Your task to perform on an android device: turn off location history Image 0: 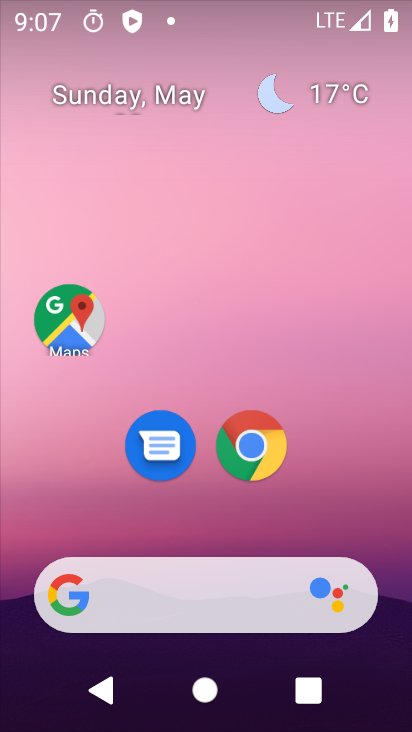
Step 0: click (297, 111)
Your task to perform on an android device: turn off location history Image 1: 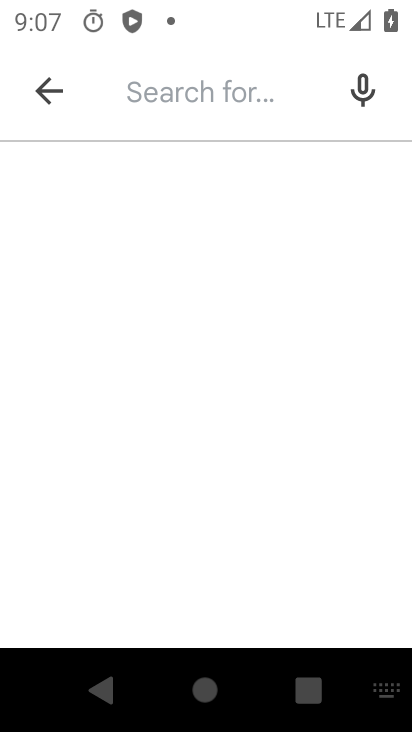
Step 1: press home button
Your task to perform on an android device: turn off location history Image 2: 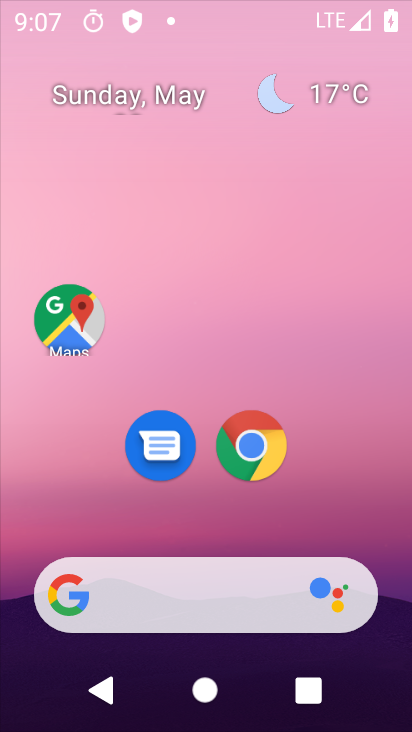
Step 2: drag from (239, 521) to (294, 181)
Your task to perform on an android device: turn off location history Image 3: 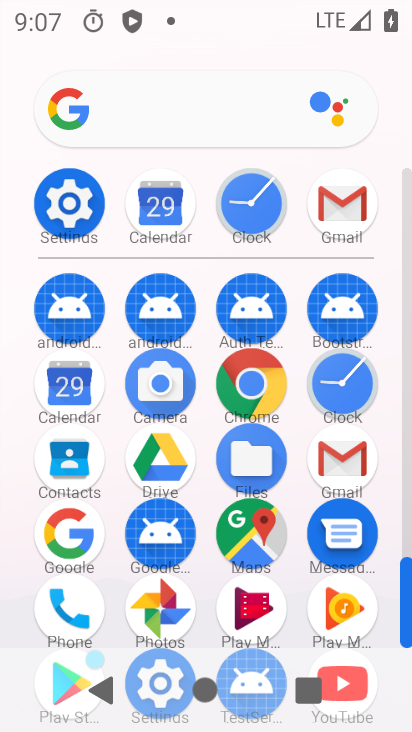
Step 3: click (54, 198)
Your task to perform on an android device: turn off location history Image 4: 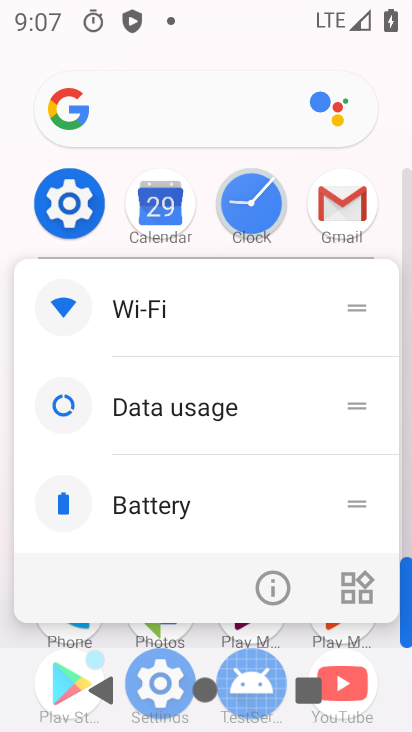
Step 4: click (263, 573)
Your task to perform on an android device: turn off location history Image 5: 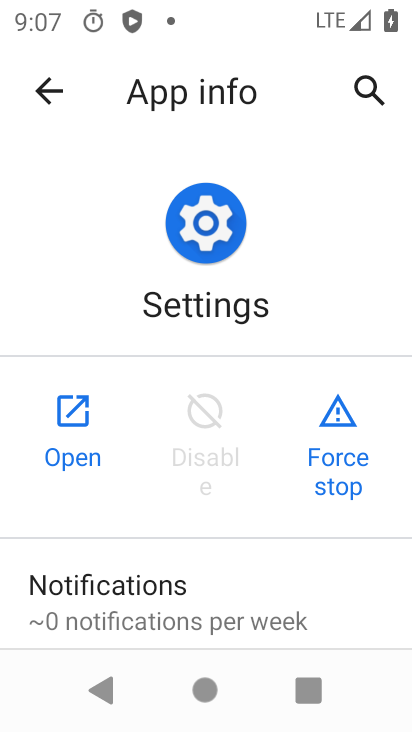
Step 5: click (79, 427)
Your task to perform on an android device: turn off location history Image 6: 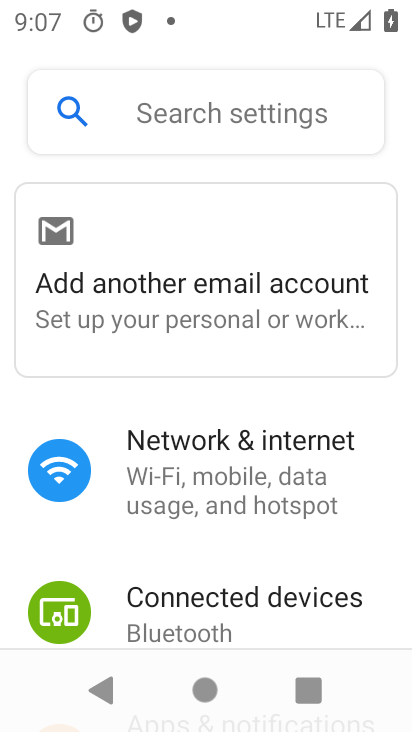
Step 6: drag from (211, 554) to (377, 152)
Your task to perform on an android device: turn off location history Image 7: 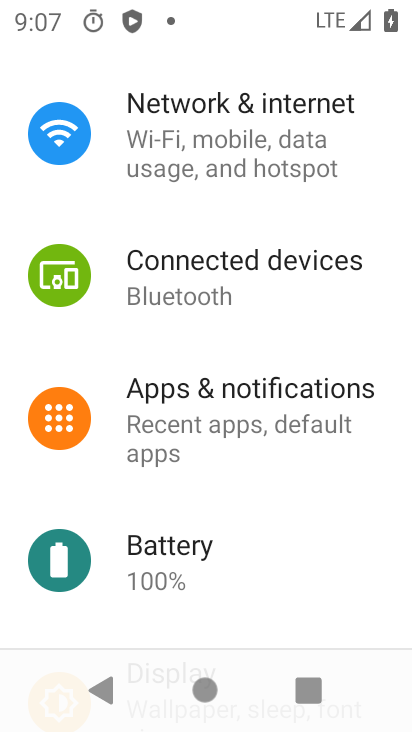
Step 7: drag from (212, 570) to (412, 417)
Your task to perform on an android device: turn off location history Image 8: 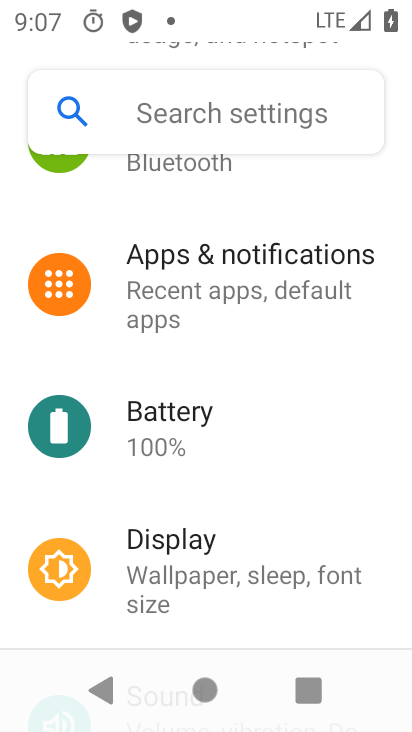
Step 8: drag from (205, 571) to (245, 11)
Your task to perform on an android device: turn off location history Image 9: 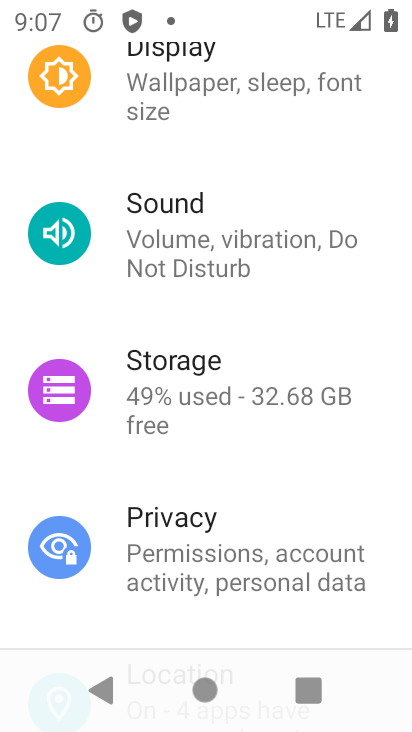
Step 9: drag from (247, 532) to (340, 145)
Your task to perform on an android device: turn off location history Image 10: 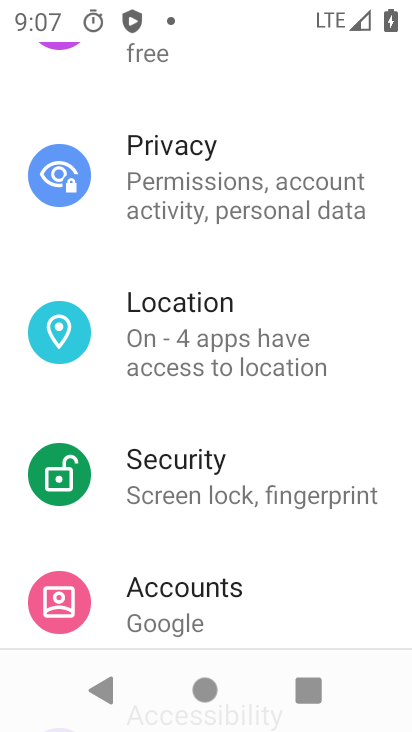
Step 10: click (232, 325)
Your task to perform on an android device: turn off location history Image 11: 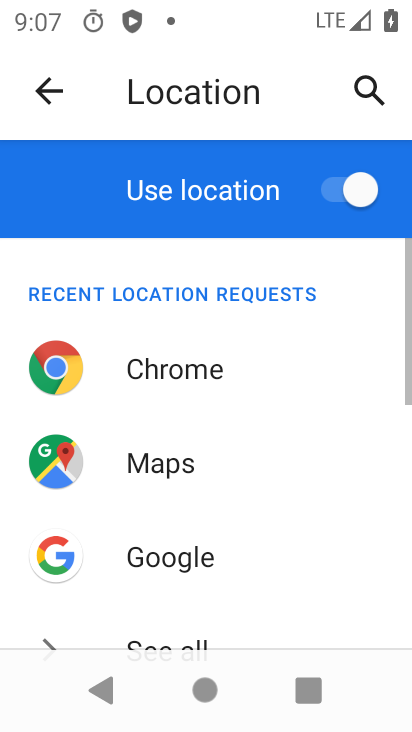
Step 11: drag from (252, 541) to (361, 30)
Your task to perform on an android device: turn off location history Image 12: 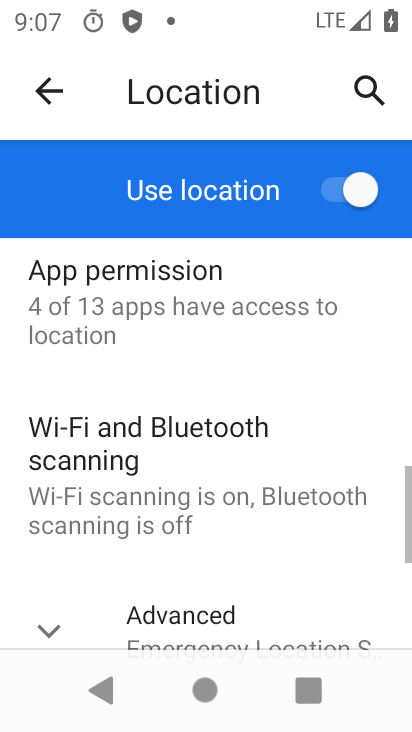
Step 12: drag from (192, 578) to (244, 270)
Your task to perform on an android device: turn off location history Image 13: 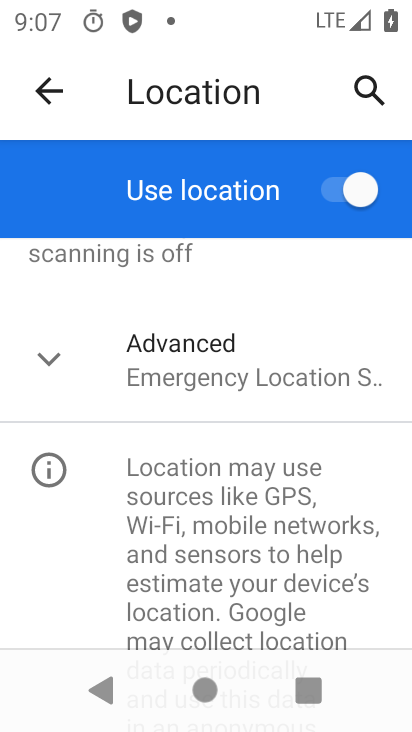
Step 13: click (142, 390)
Your task to perform on an android device: turn off location history Image 14: 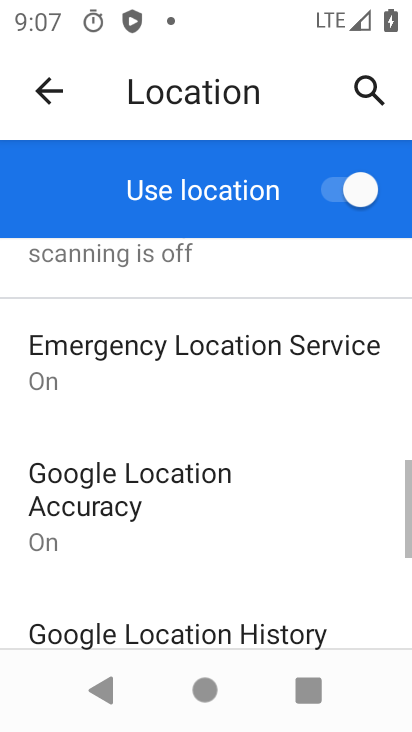
Step 14: drag from (192, 551) to (247, 254)
Your task to perform on an android device: turn off location history Image 15: 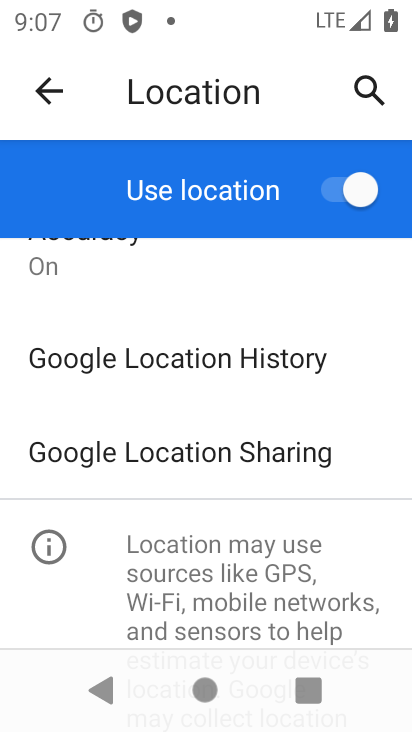
Step 15: drag from (191, 359) to (202, 690)
Your task to perform on an android device: turn off location history Image 16: 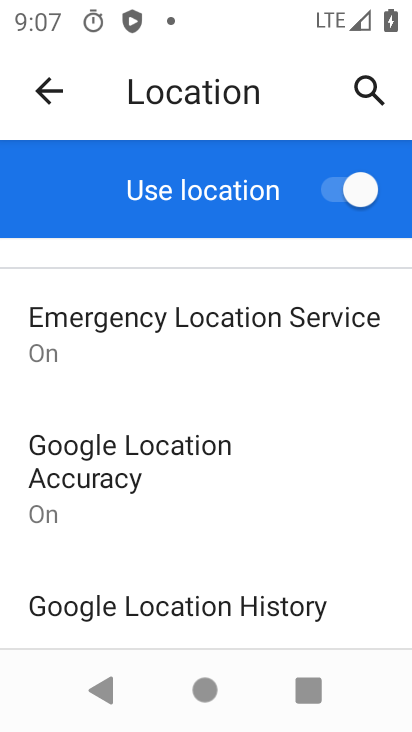
Step 16: drag from (262, 361) to (363, 208)
Your task to perform on an android device: turn off location history Image 17: 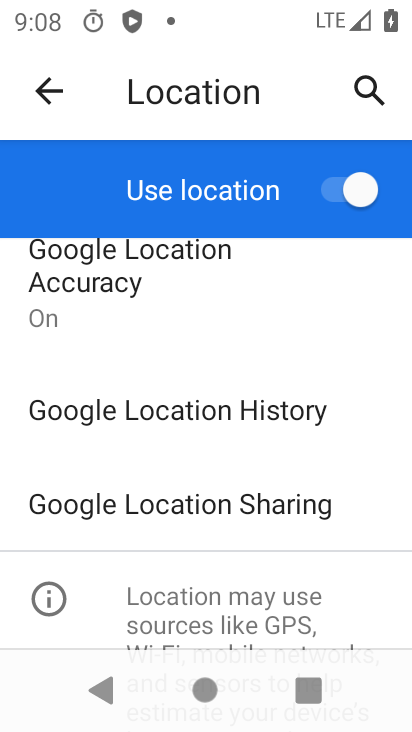
Step 17: click (178, 414)
Your task to perform on an android device: turn off location history Image 18: 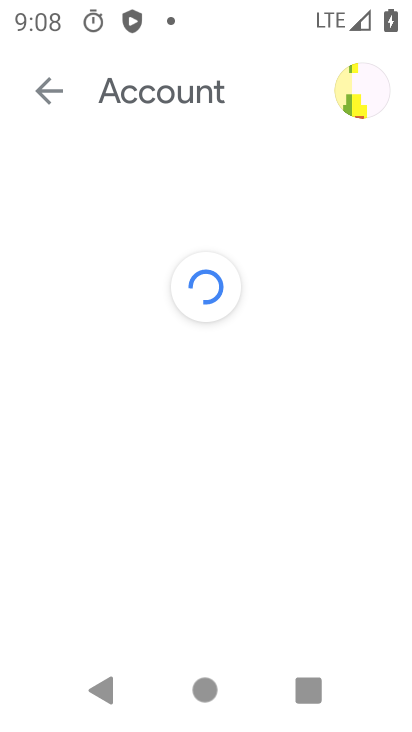
Step 18: task complete